Your task to perform on an android device: Open privacy settings Image 0: 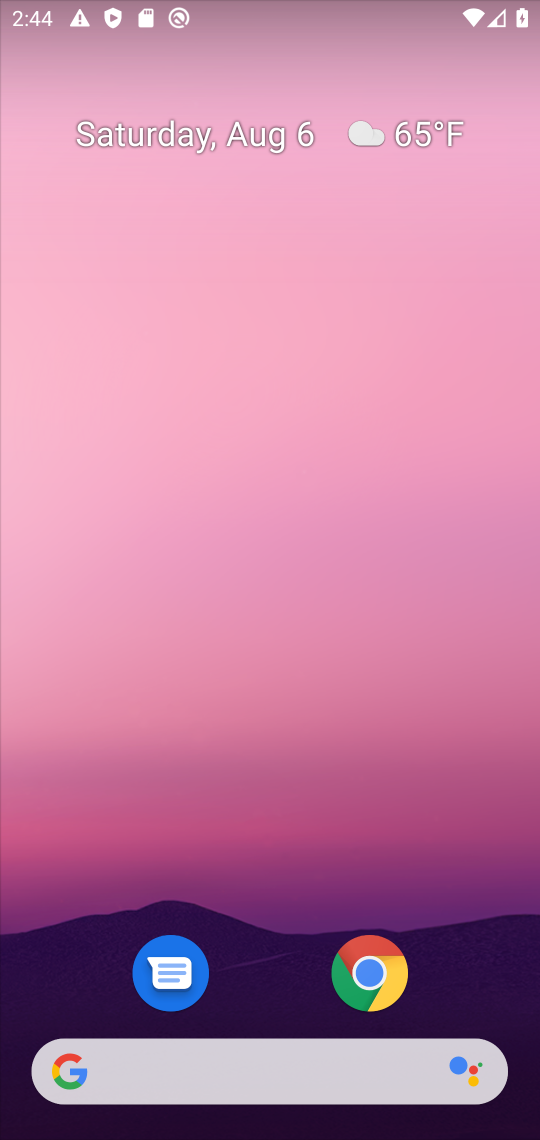
Step 0: drag from (219, 834) to (108, 114)
Your task to perform on an android device: Open privacy settings Image 1: 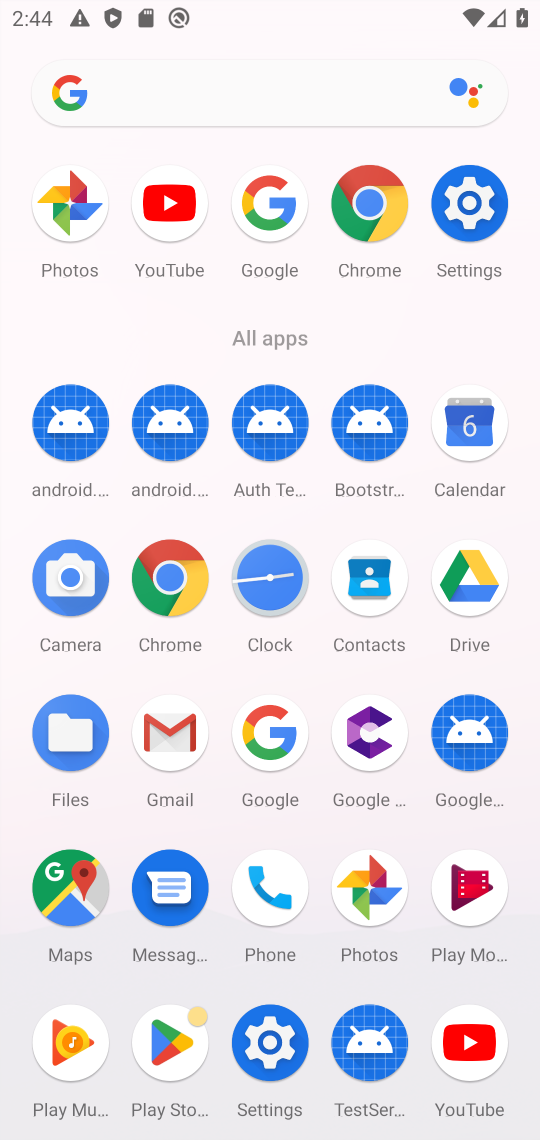
Step 1: click (270, 1035)
Your task to perform on an android device: Open privacy settings Image 2: 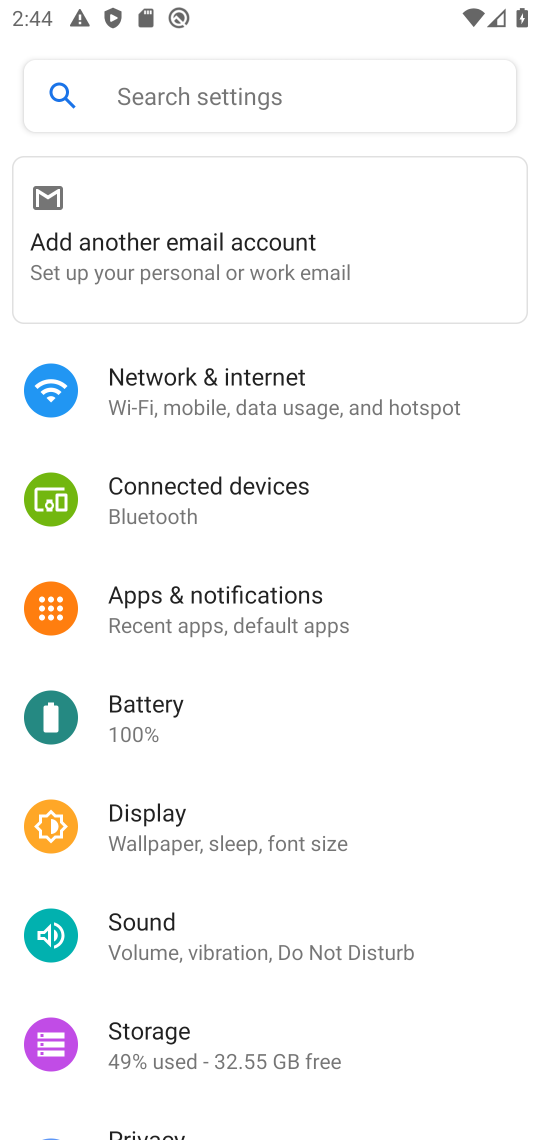
Step 2: drag from (172, 921) to (62, 240)
Your task to perform on an android device: Open privacy settings Image 3: 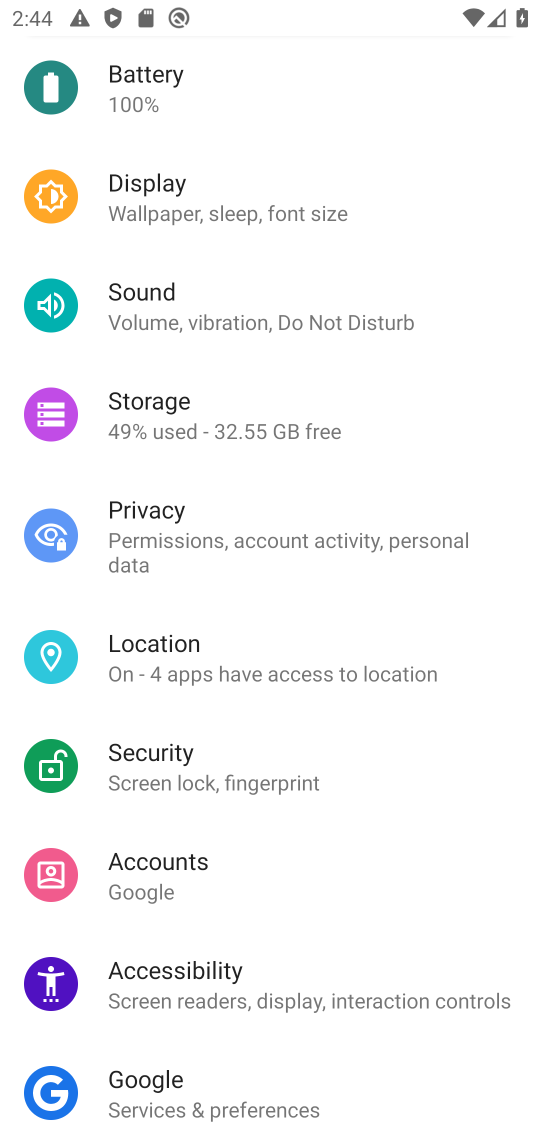
Step 3: click (200, 513)
Your task to perform on an android device: Open privacy settings Image 4: 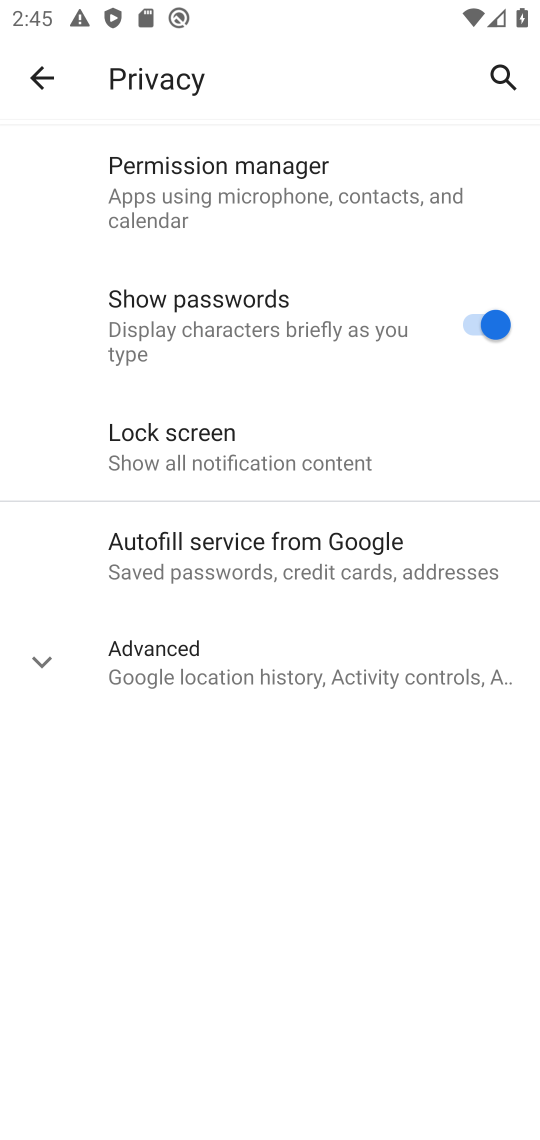
Step 4: task complete